Your task to perform on an android device: Open battery settings Image 0: 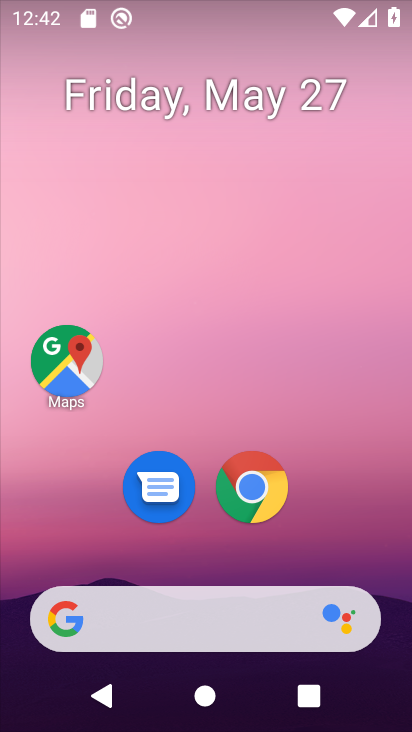
Step 0: drag from (158, 729) to (144, 68)
Your task to perform on an android device: Open battery settings Image 1: 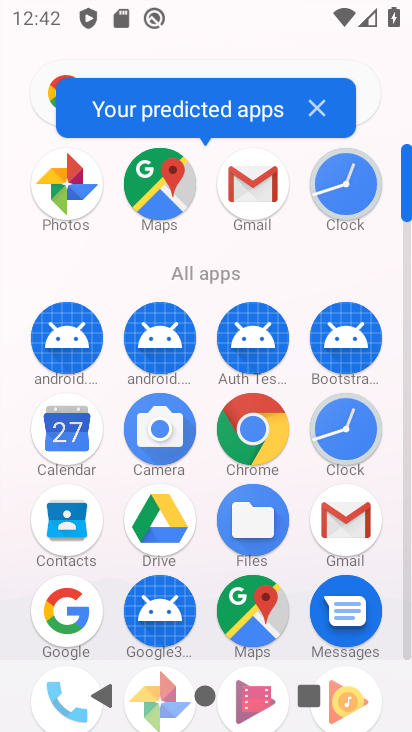
Step 1: drag from (109, 372) to (109, 135)
Your task to perform on an android device: Open battery settings Image 2: 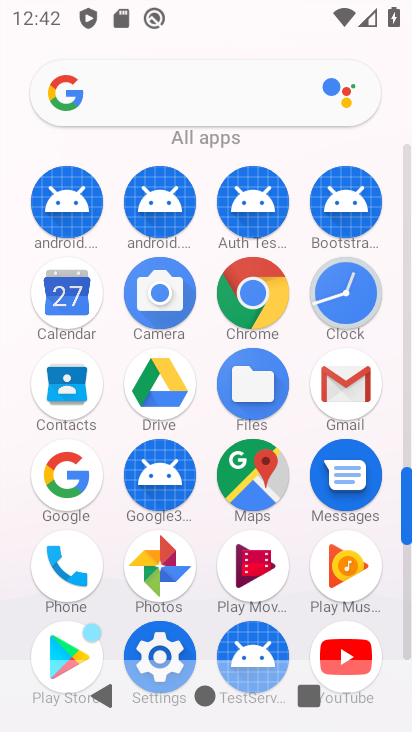
Step 2: click (170, 642)
Your task to perform on an android device: Open battery settings Image 3: 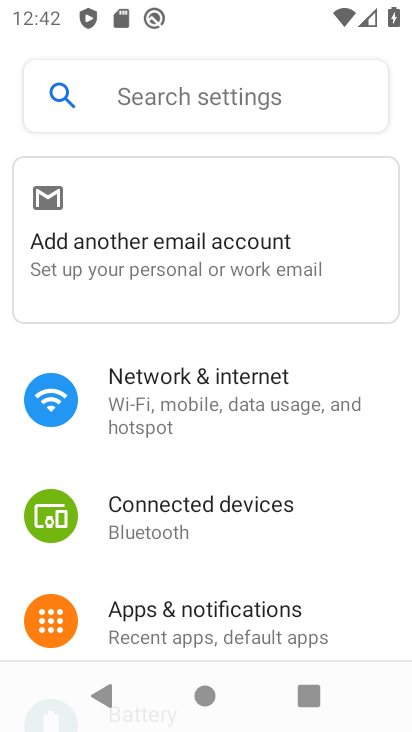
Step 3: drag from (322, 571) to (308, 120)
Your task to perform on an android device: Open battery settings Image 4: 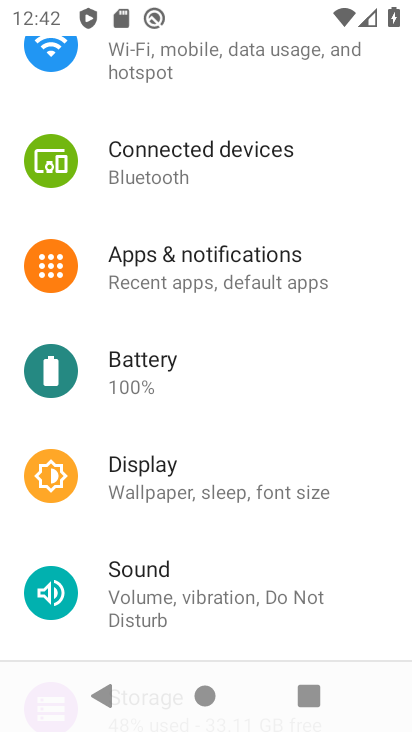
Step 4: click (143, 379)
Your task to perform on an android device: Open battery settings Image 5: 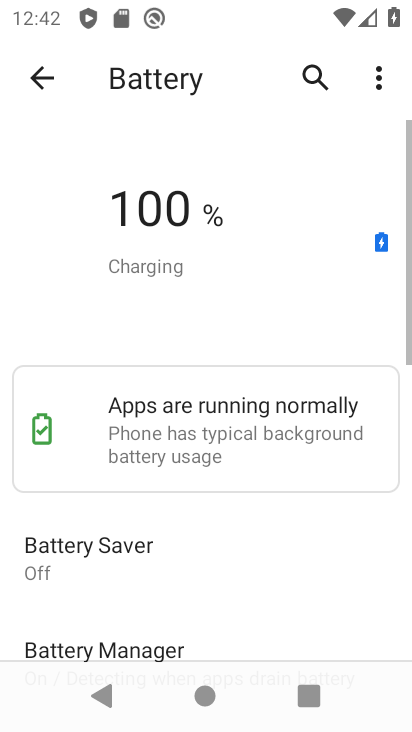
Step 5: drag from (269, 521) to (283, 184)
Your task to perform on an android device: Open battery settings Image 6: 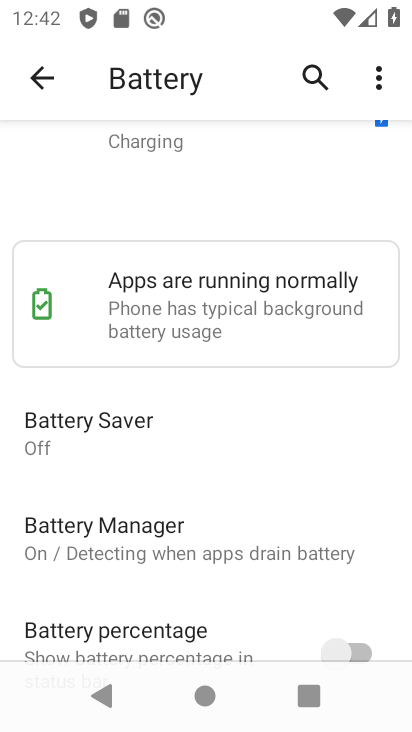
Step 6: click (377, 86)
Your task to perform on an android device: Open battery settings Image 7: 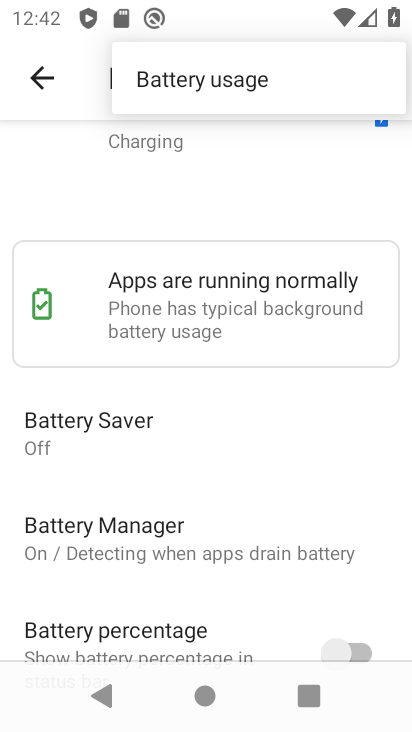
Step 7: click (278, 207)
Your task to perform on an android device: Open battery settings Image 8: 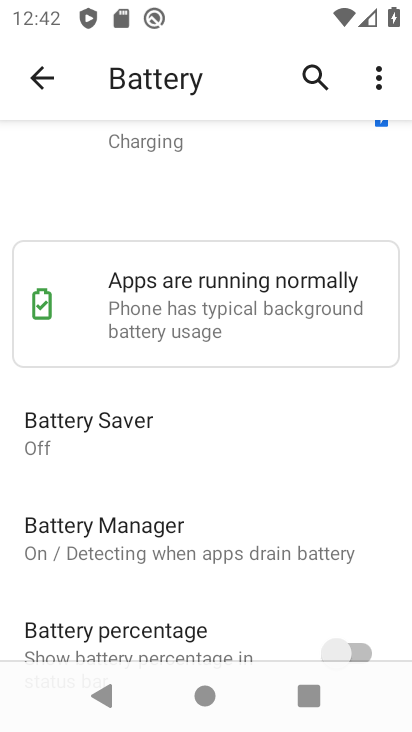
Step 8: task complete